Your task to perform on an android device: turn notification dots on Image 0: 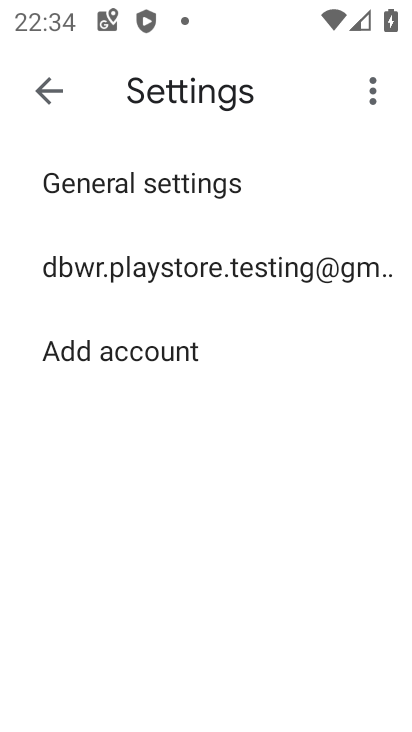
Step 0: press home button
Your task to perform on an android device: turn notification dots on Image 1: 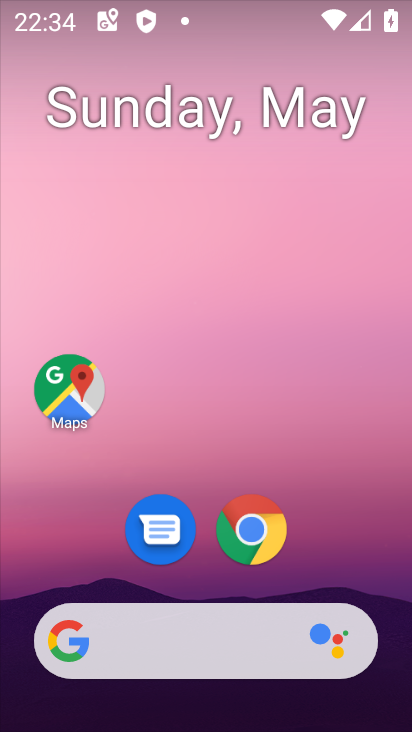
Step 1: drag from (336, 571) to (274, 168)
Your task to perform on an android device: turn notification dots on Image 2: 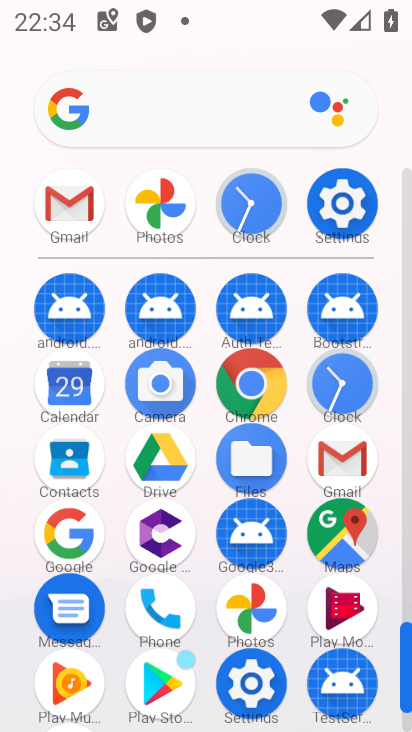
Step 2: click (323, 199)
Your task to perform on an android device: turn notification dots on Image 3: 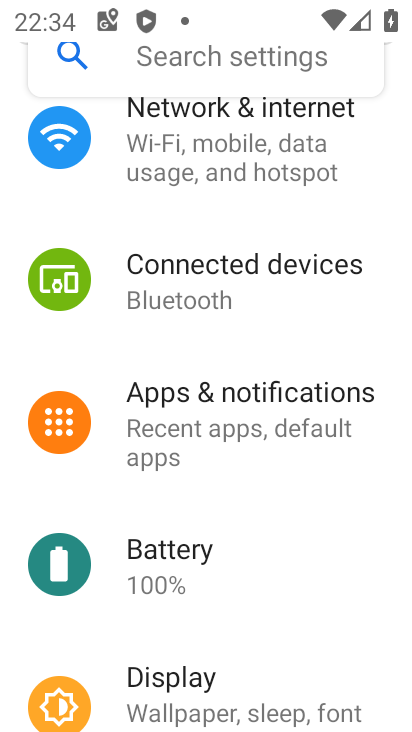
Step 3: click (233, 422)
Your task to perform on an android device: turn notification dots on Image 4: 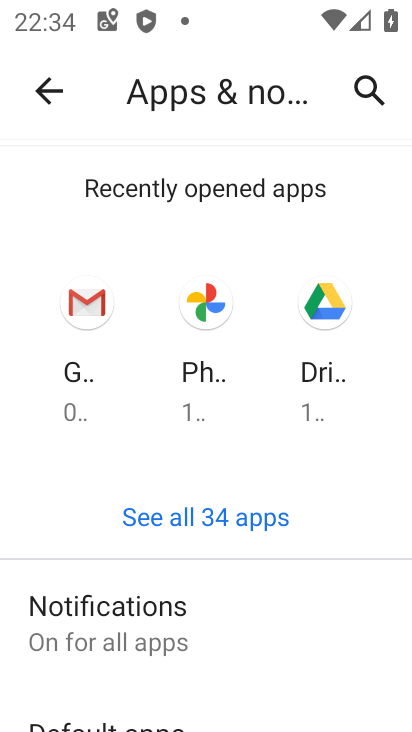
Step 4: task complete